Your task to perform on an android device: allow cookies in the chrome app Image 0: 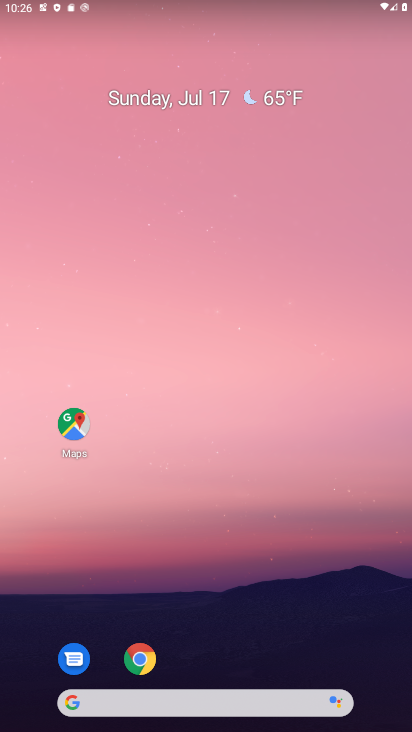
Step 0: click (140, 657)
Your task to perform on an android device: allow cookies in the chrome app Image 1: 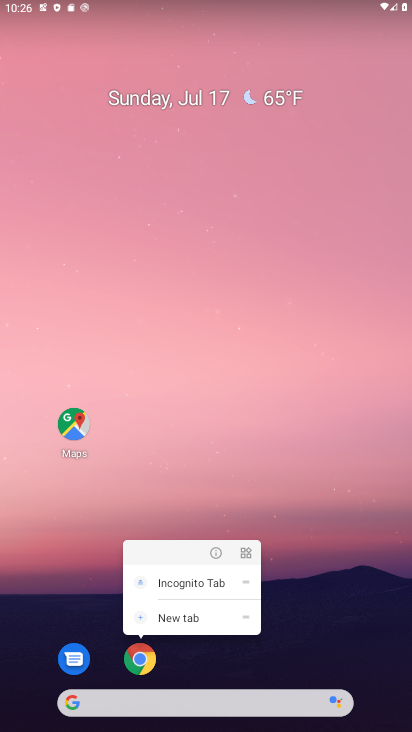
Step 1: click (155, 664)
Your task to perform on an android device: allow cookies in the chrome app Image 2: 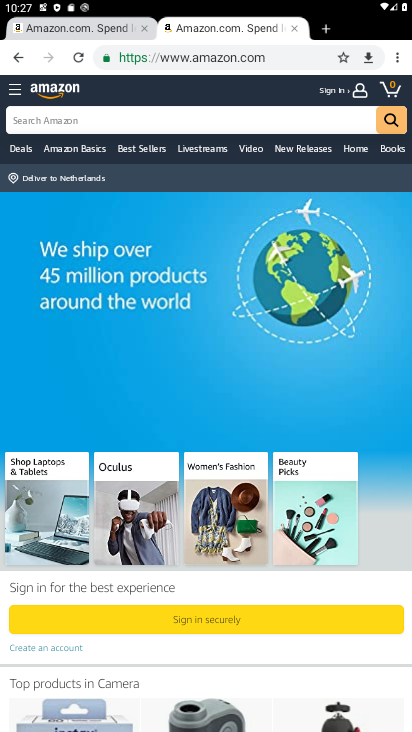
Step 2: drag from (394, 67) to (299, 411)
Your task to perform on an android device: allow cookies in the chrome app Image 3: 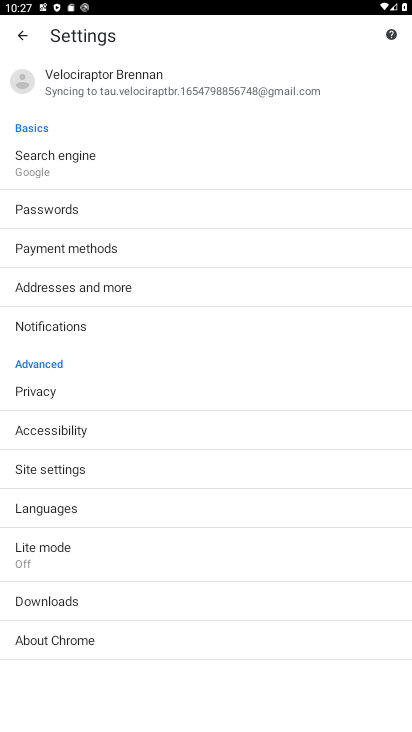
Step 3: click (69, 462)
Your task to perform on an android device: allow cookies in the chrome app Image 4: 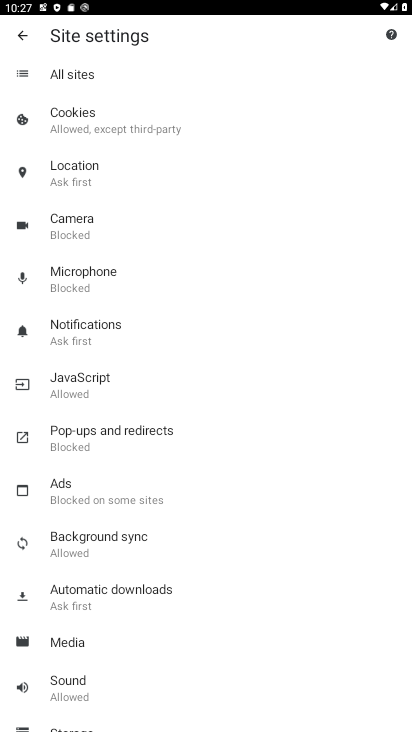
Step 4: click (99, 126)
Your task to perform on an android device: allow cookies in the chrome app Image 5: 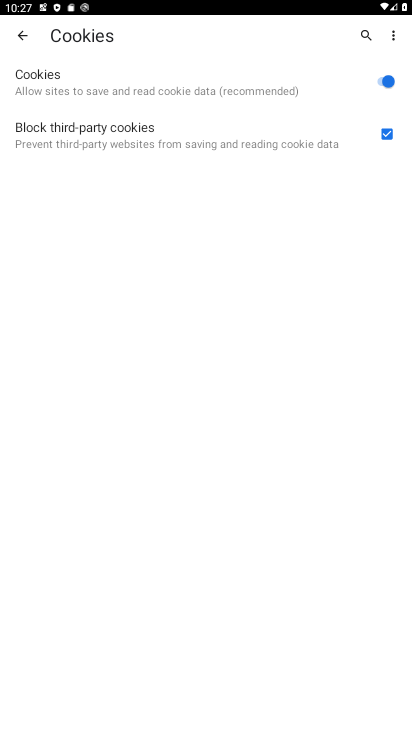
Step 5: task complete